Your task to perform on an android device: Open Android settings Image 0: 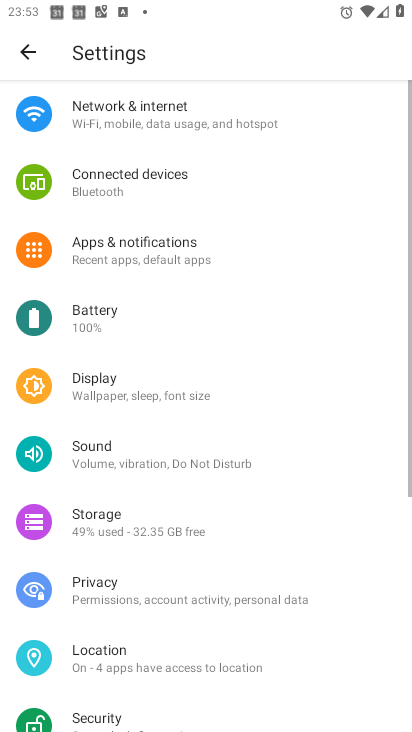
Step 0: drag from (184, 629) to (177, 255)
Your task to perform on an android device: Open Android settings Image 1: 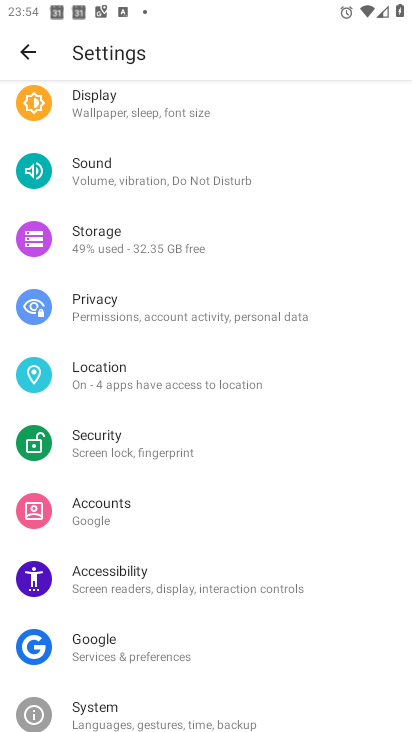
Step 1: task complete